Your task to perform on an android device: Is it going to rain this weekend? Image 0: 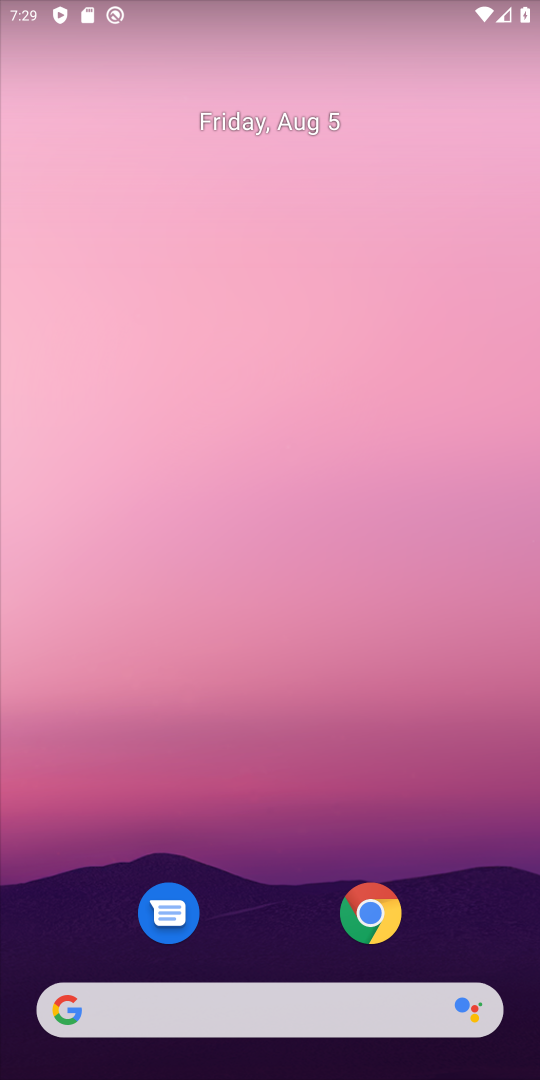
Step 0: press home button
Your task to perform on an android device: Is it going to rain this weekend? Image 1: 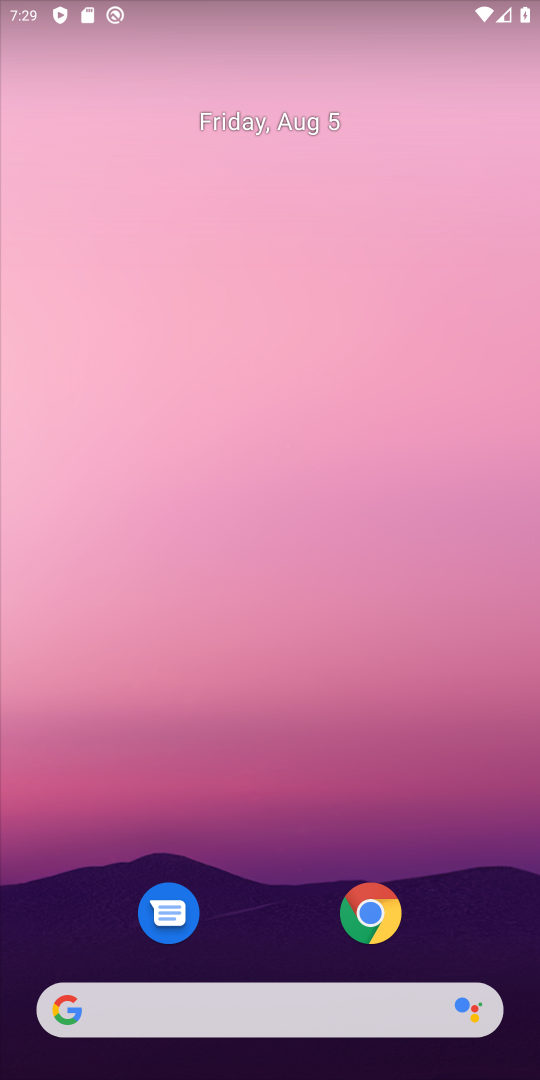
Step 1: click (274, 1008)
Your task to perform on an android device: Is it going to rain this weekend? Image 2: 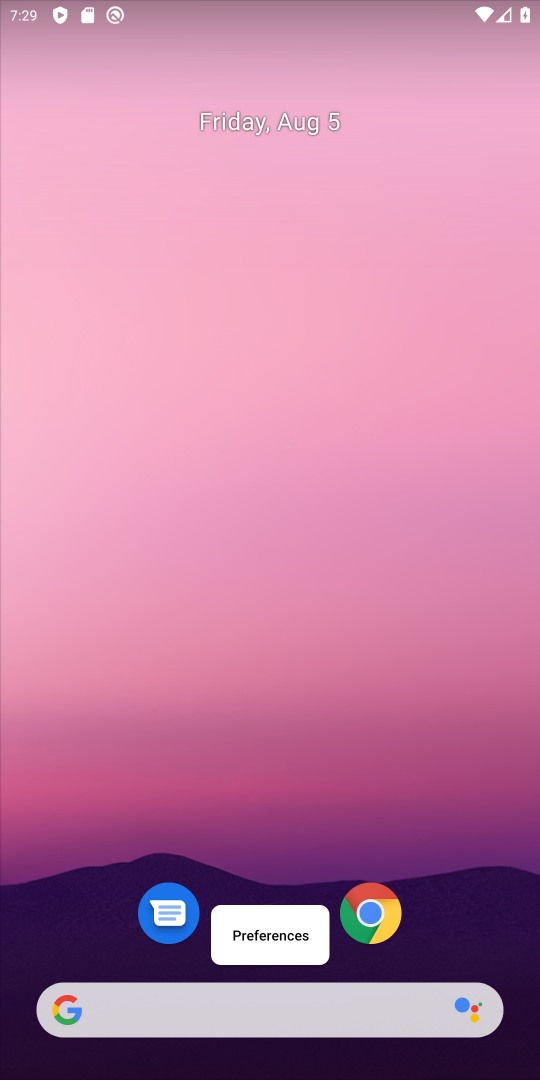
Step 2: click (286, 1003)
Your task to perform on an android device: Is it going to rain this weekend? Image 3: 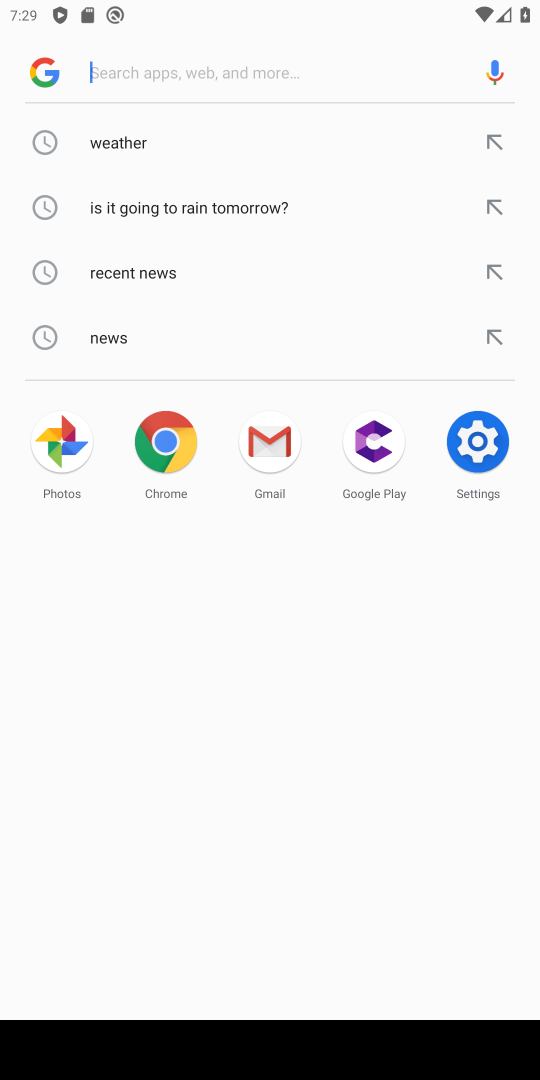
Step 3: click (138, 133)
Your task to perform on an android device: Is it going to rain this weekend? Image 4: 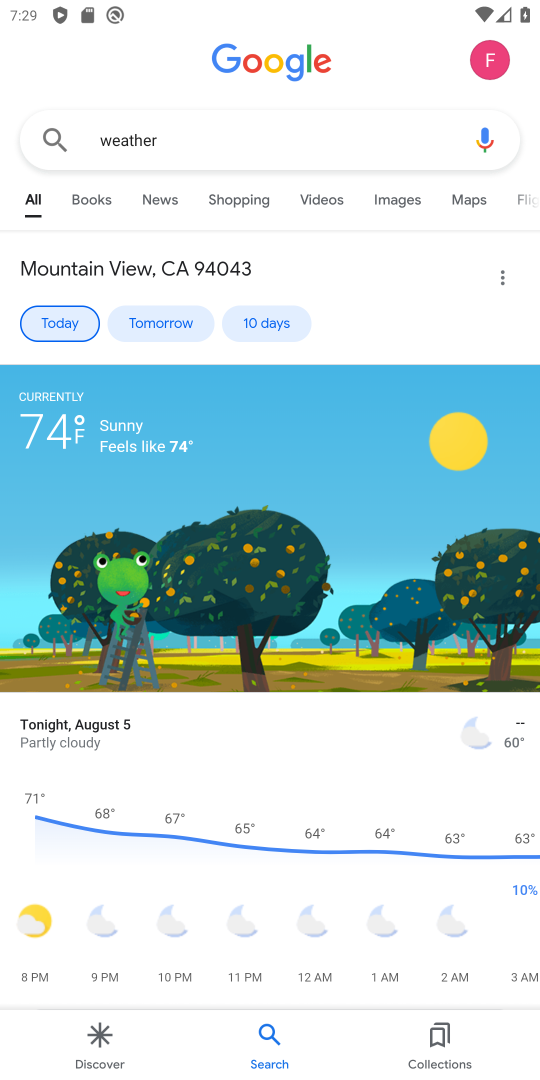
Step 4: click (268, 315)
Your task to perform on an android device: Is it going to rain this weekend? Image 5: 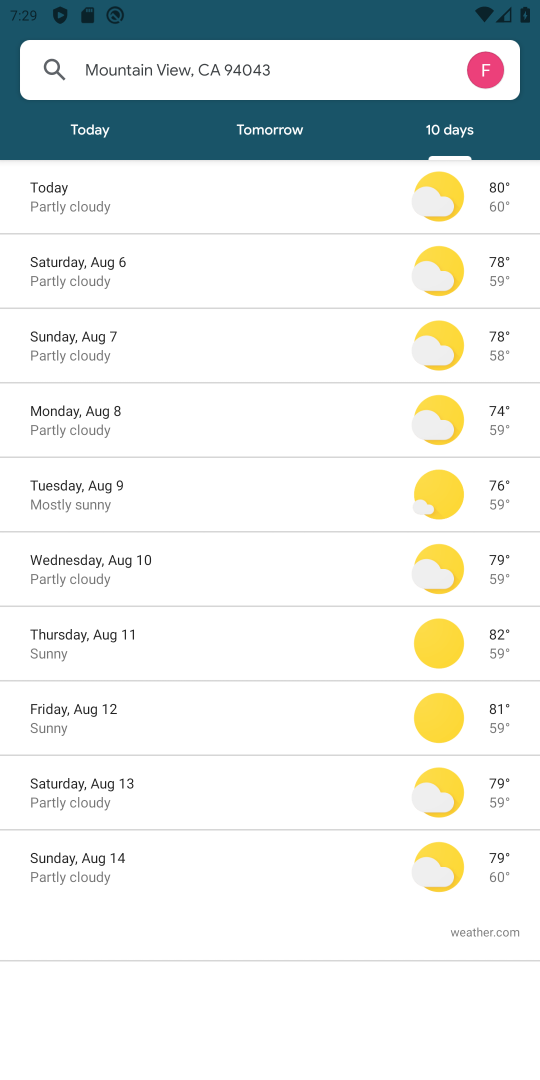
Step 5: click (167, 338)
Your task to perform on an android device: Is it going to rain this weekend? Image 6: 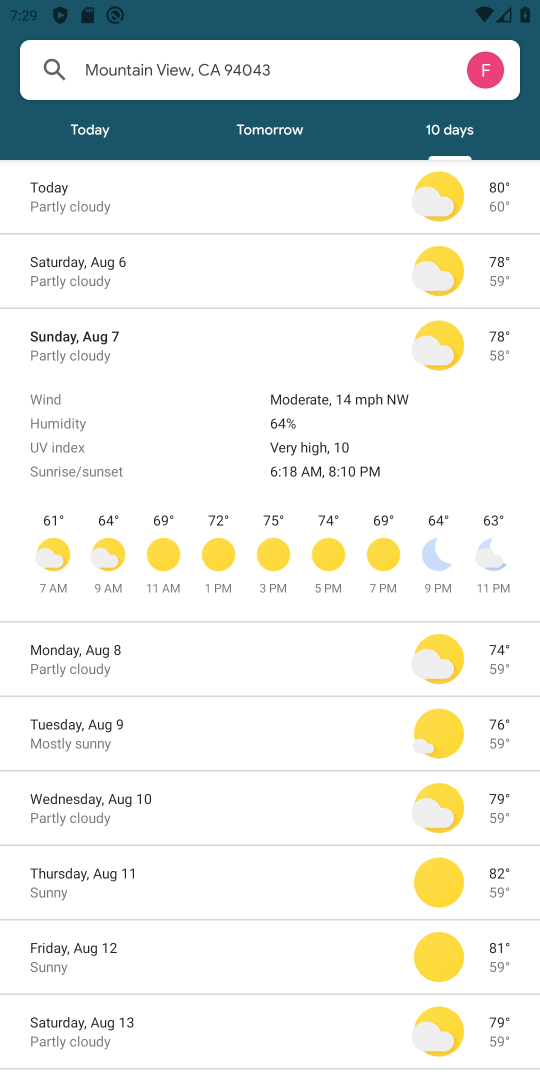
Step 6: task complete